Your task to perform on an android device: show emergency info Image 0: 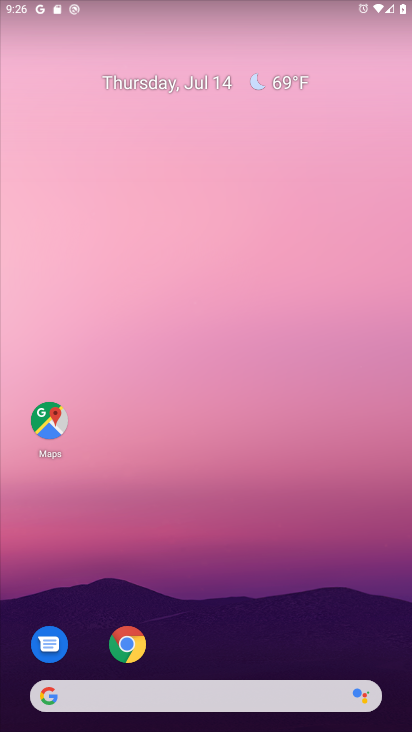
Step 0: drag from (175, 661) to (184, 0)
Your task to perform on an android device: show emergency info Image 1: 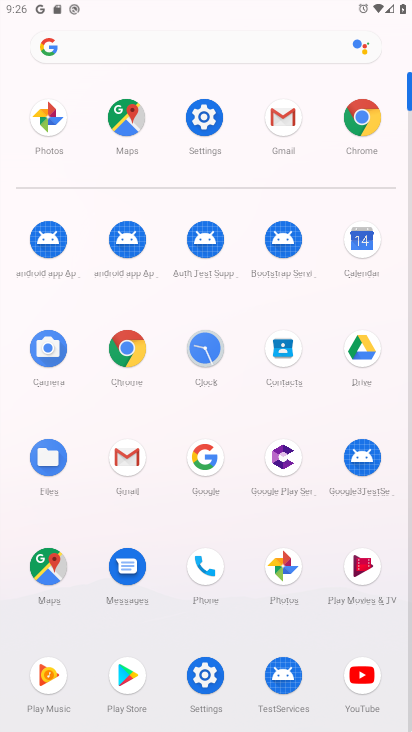
Step 1: click (194, 108)
Your task to perform on an android device: show emergency info Image 2: 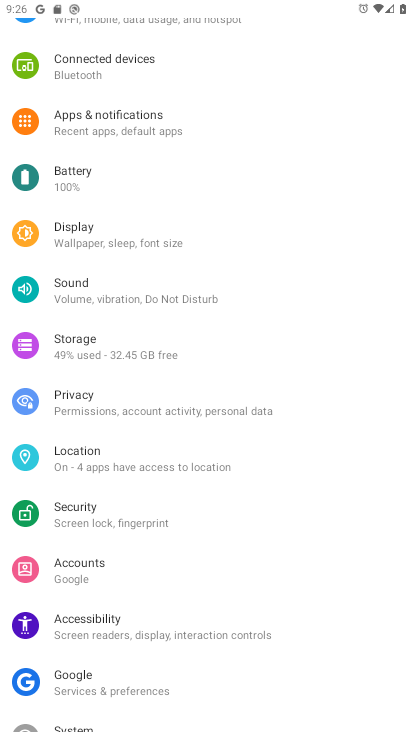
Step 2: drag from (108, 645) to (155, 94)
Your task to perform on an android device: show emergency info Image 3: 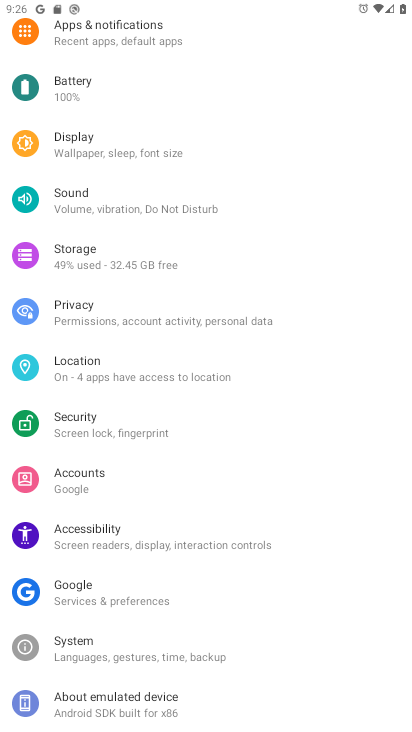
Step 3: click (197, 702)
Your task to perform on an android device: show emergency info Image 4: 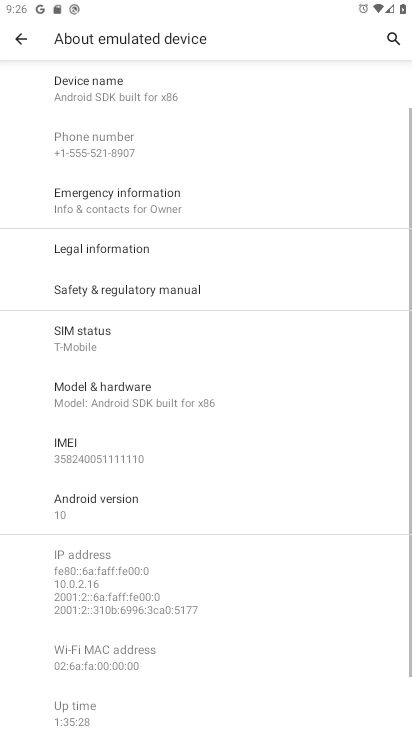
Step 4: click (152, 209)
Your task to perform on an android device: show emergency info Image 5: 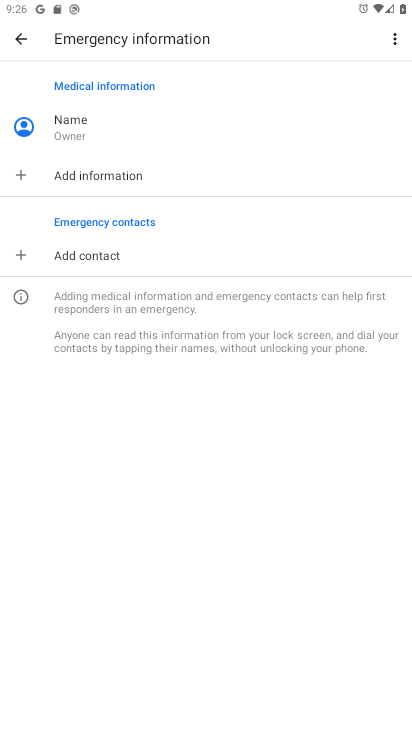
Step 5: task complete